Your task to perform on an android device: Empty the shopping cart on newegg.com. Search for razer blade on newegg.com, select the first entry, and add it to the cart. Image 0: 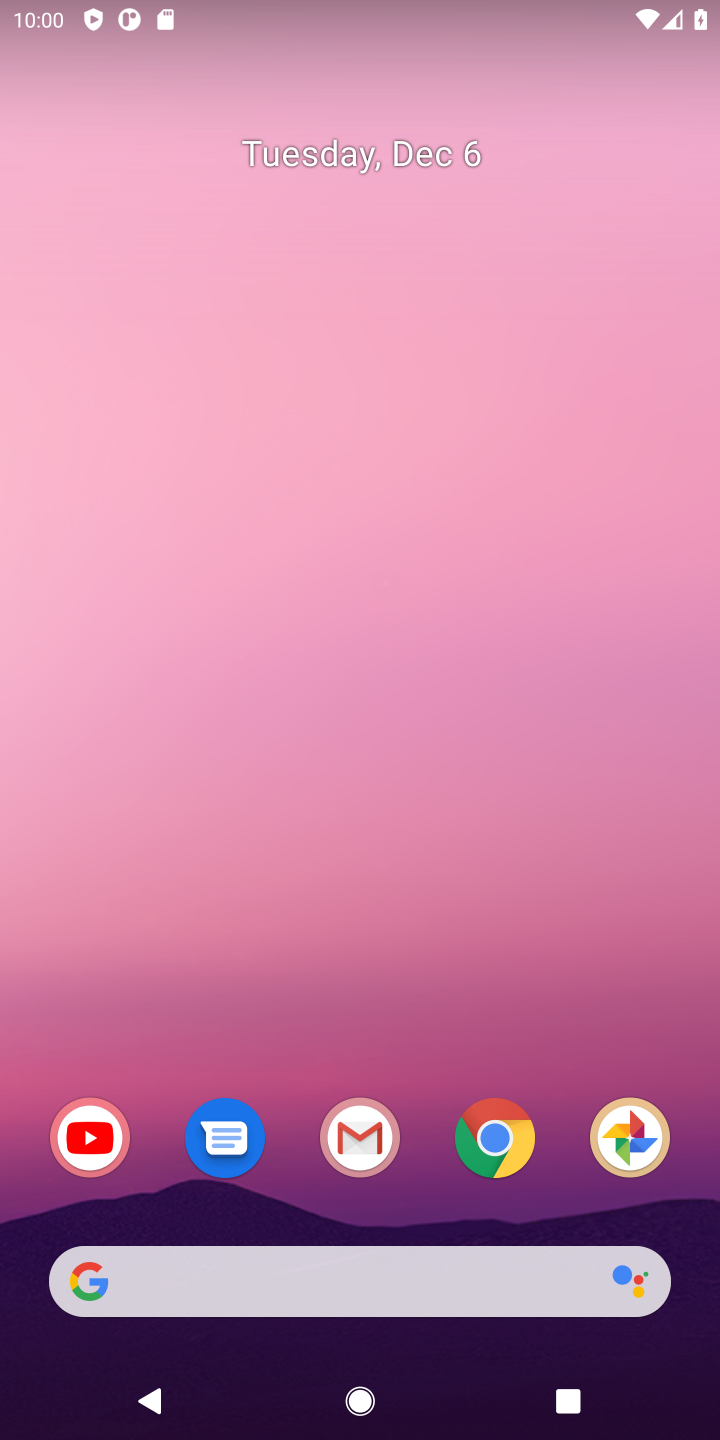
Step 0: click (507, 1145)
Your task to perform on an android device: Empty the shopping cart on newegg.com. Search for razer blade on newegg.com, select the first entry, and add it to the cart. Image 1: 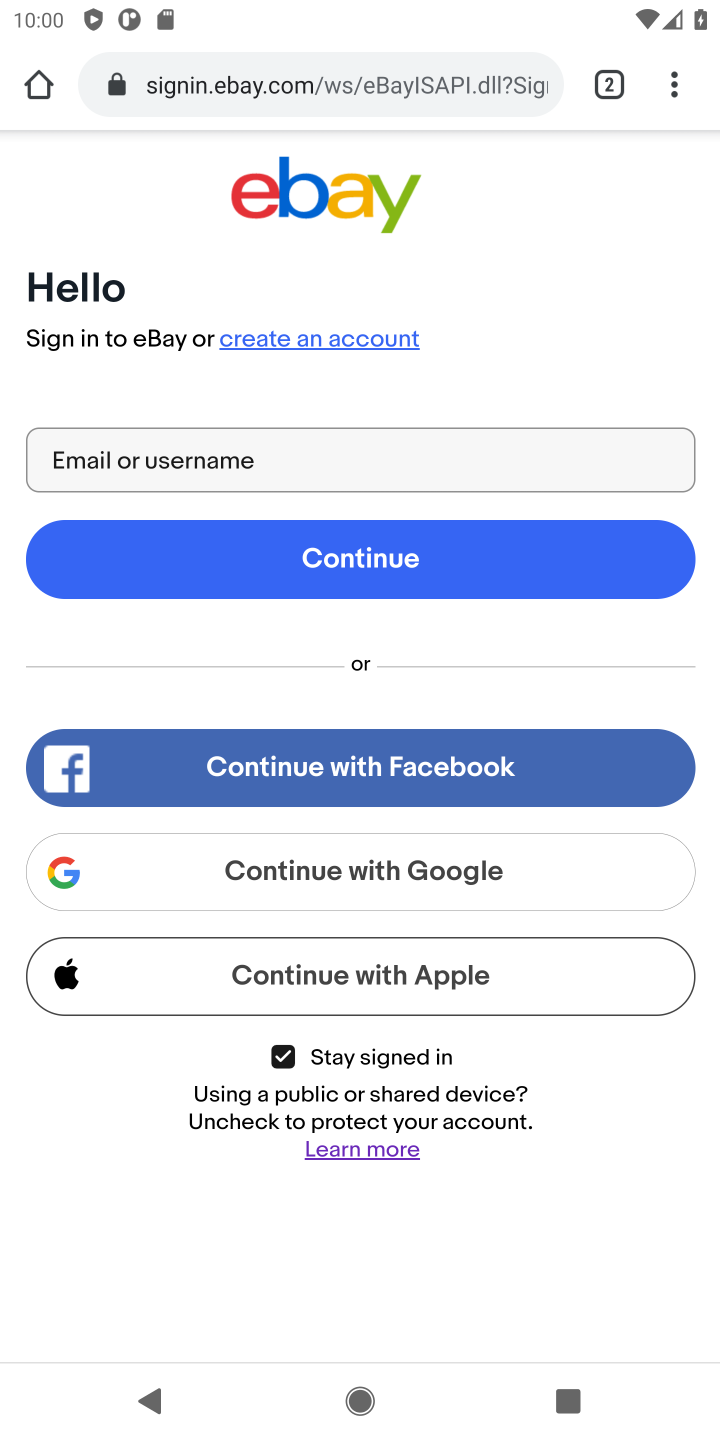
Step 1: click (280, 92)
Your task to perform on an android device: Empty the shopping cart on newegg.com. Search for razer blade on newegg.com, select the first entry, and add it to the cart. Image 2: 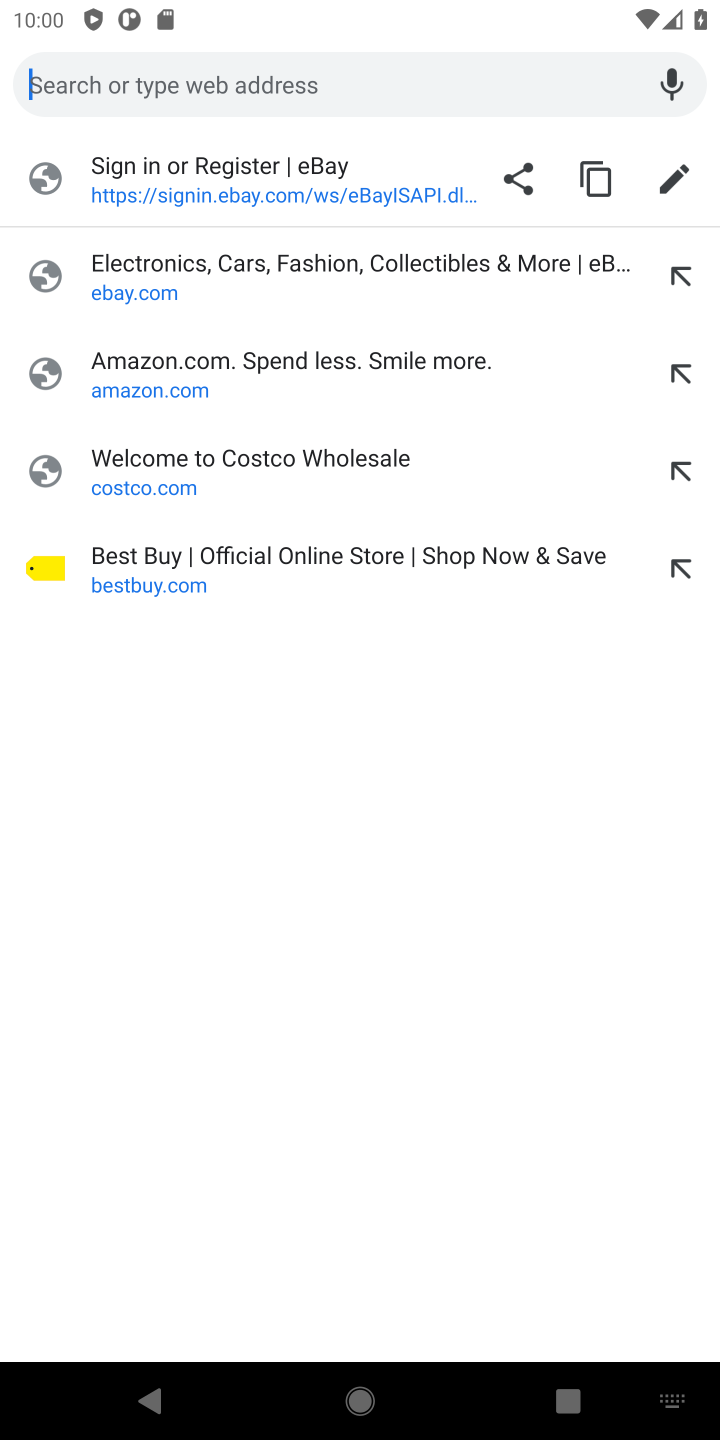
Step 2: type "newegg.com"
Your task to perform on an android device: Empty the shopping cart on newegg.com. Search for razer blade on newegg.com, select the first entry, and add it to the cart. Image 3: 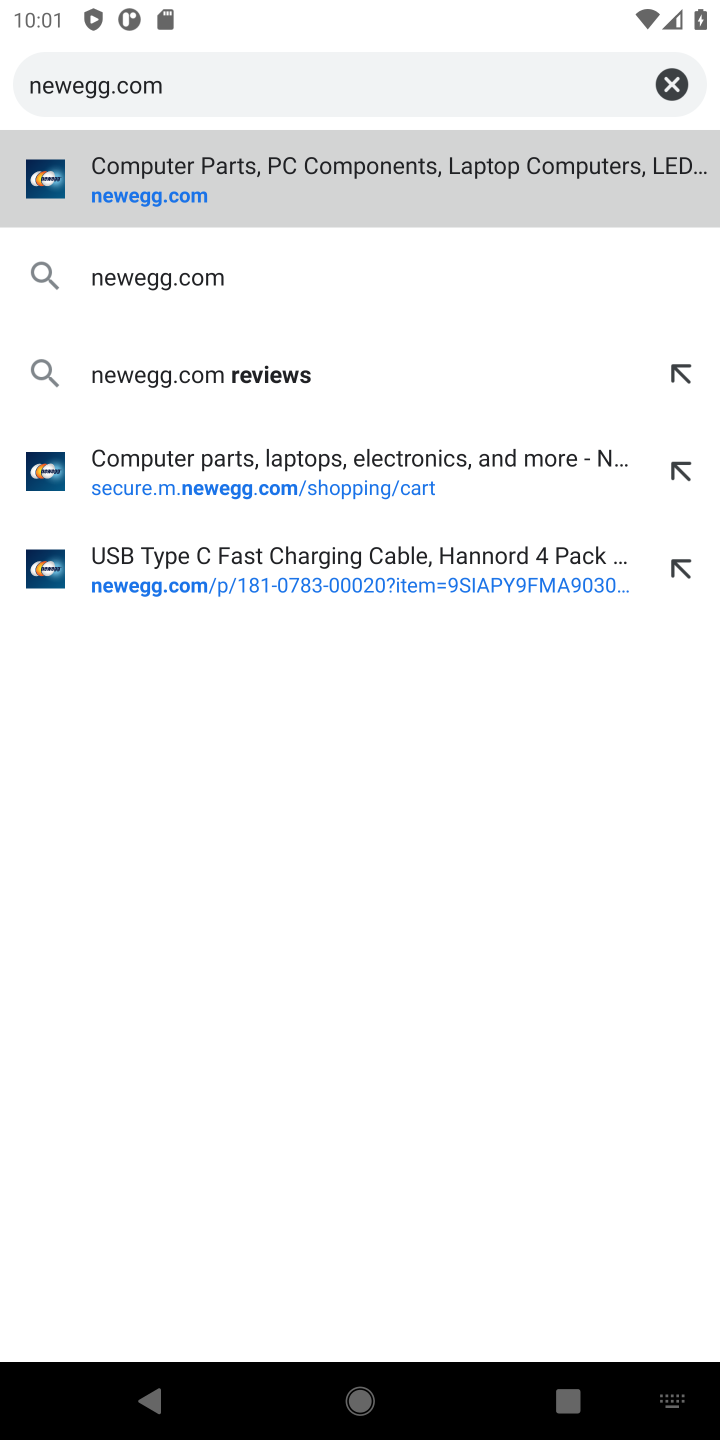
Step 3: click (149, 182)
Your task to perform on an android device: Empty the shopping cart on newegg.com. Search for razer blade on newegg.com, select the first entry, and add it to the cart. Image 4: 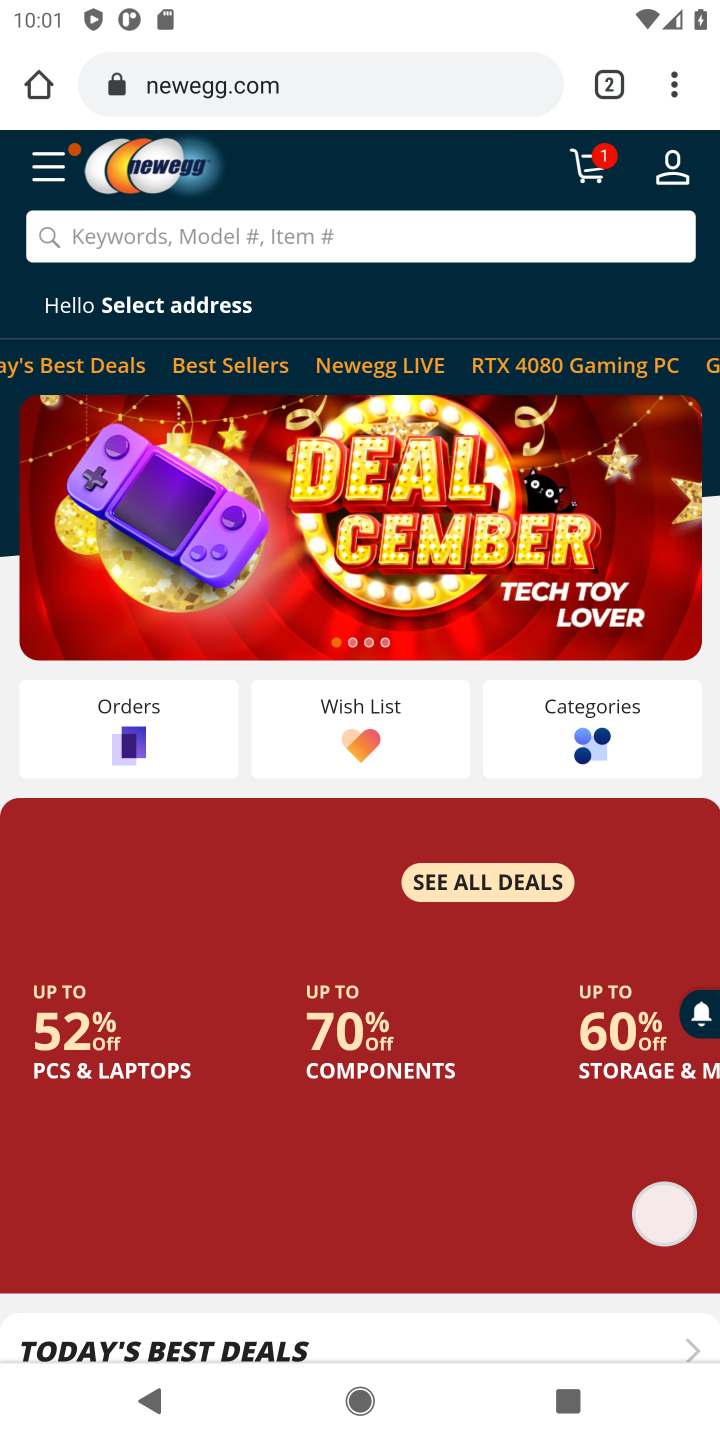
Step 4: click (590, 175)
Your task to perform on an android device: Empty the shopping cart on newegg.com. Search for razer blade on newegg.com, select the first entry, and add it to the cart. Image 5: 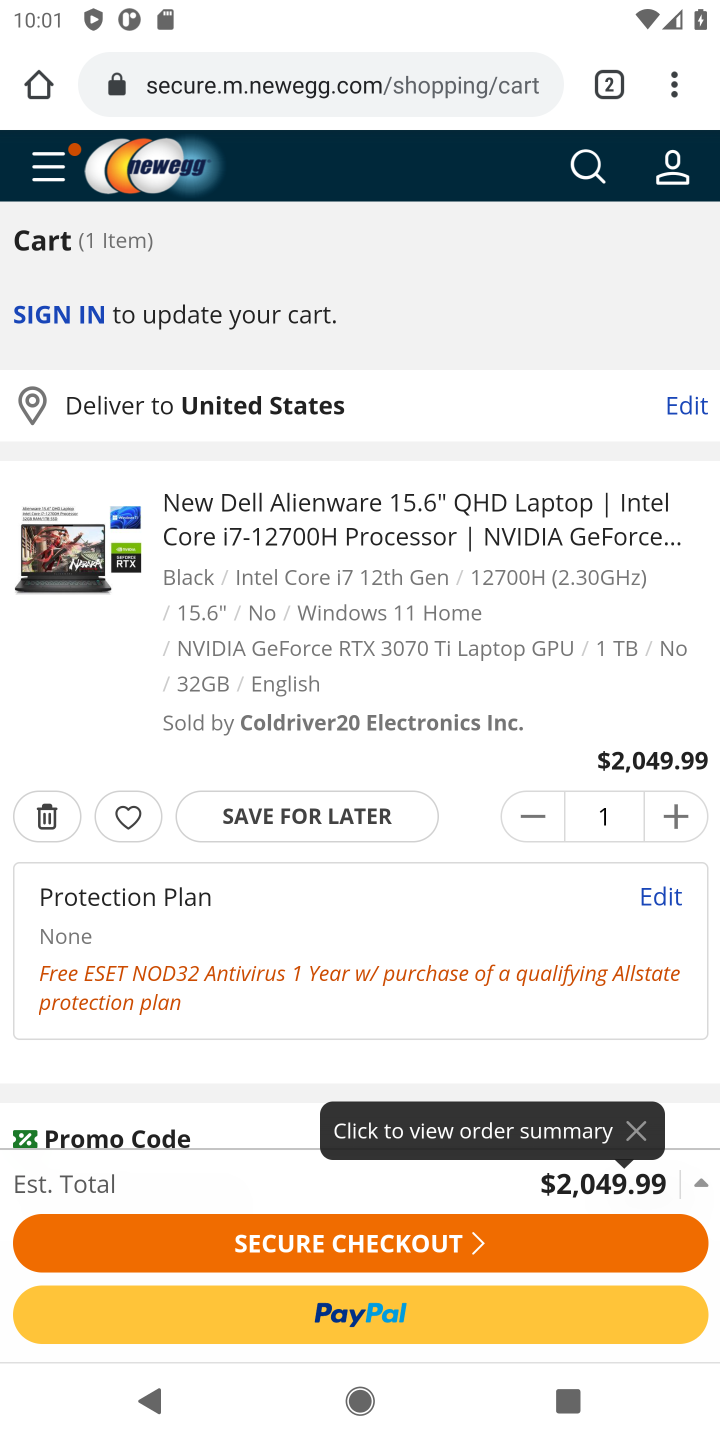
Step 5: click (50, 828)
Your task to perform on an android device: Empty the shopping cart on newegg.com. Search for razer blade on newegg.com, select the first entry, and add it to the cart. Image 6: 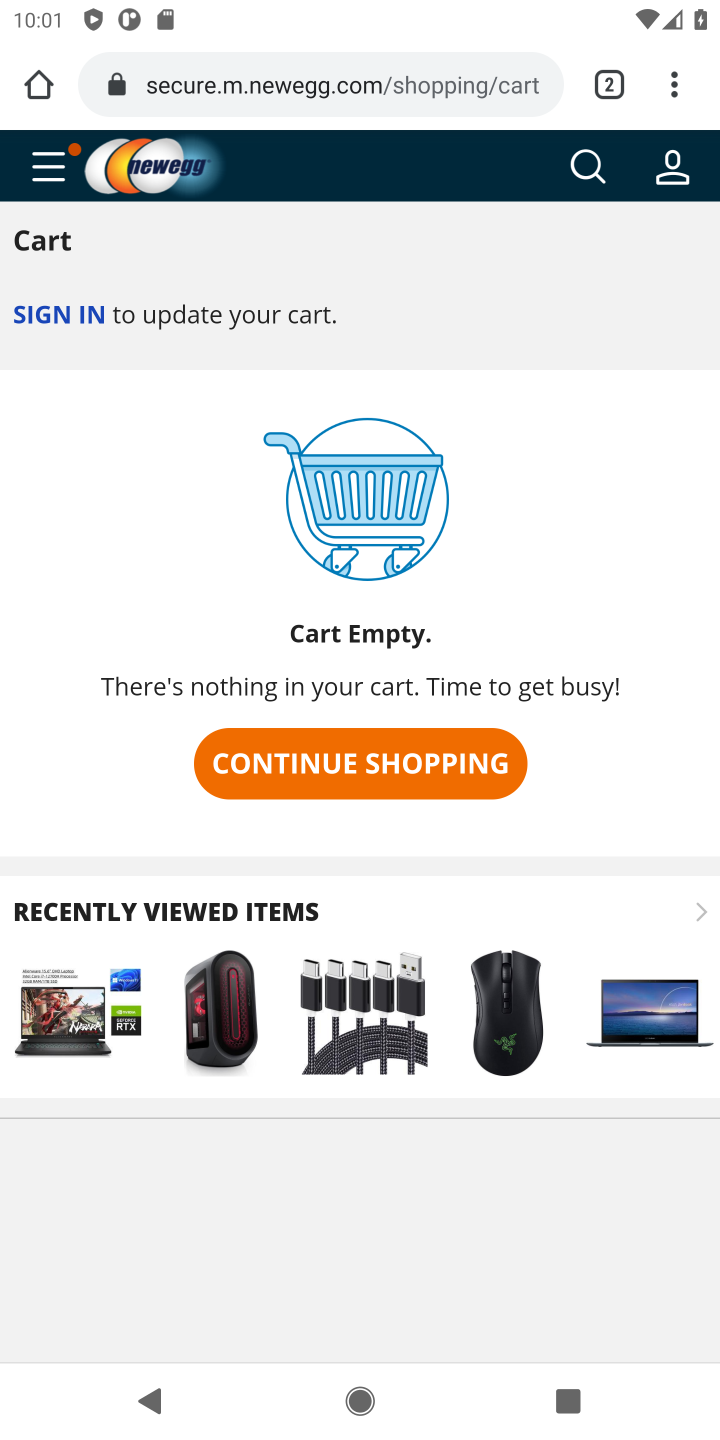
Step 6: click (586, 159)
Your task to perform on an android device: Empty the shopping cart on newegg.com. Search for razer blade on newegg.com, select the first entry, and add it to the cart. Image 7: 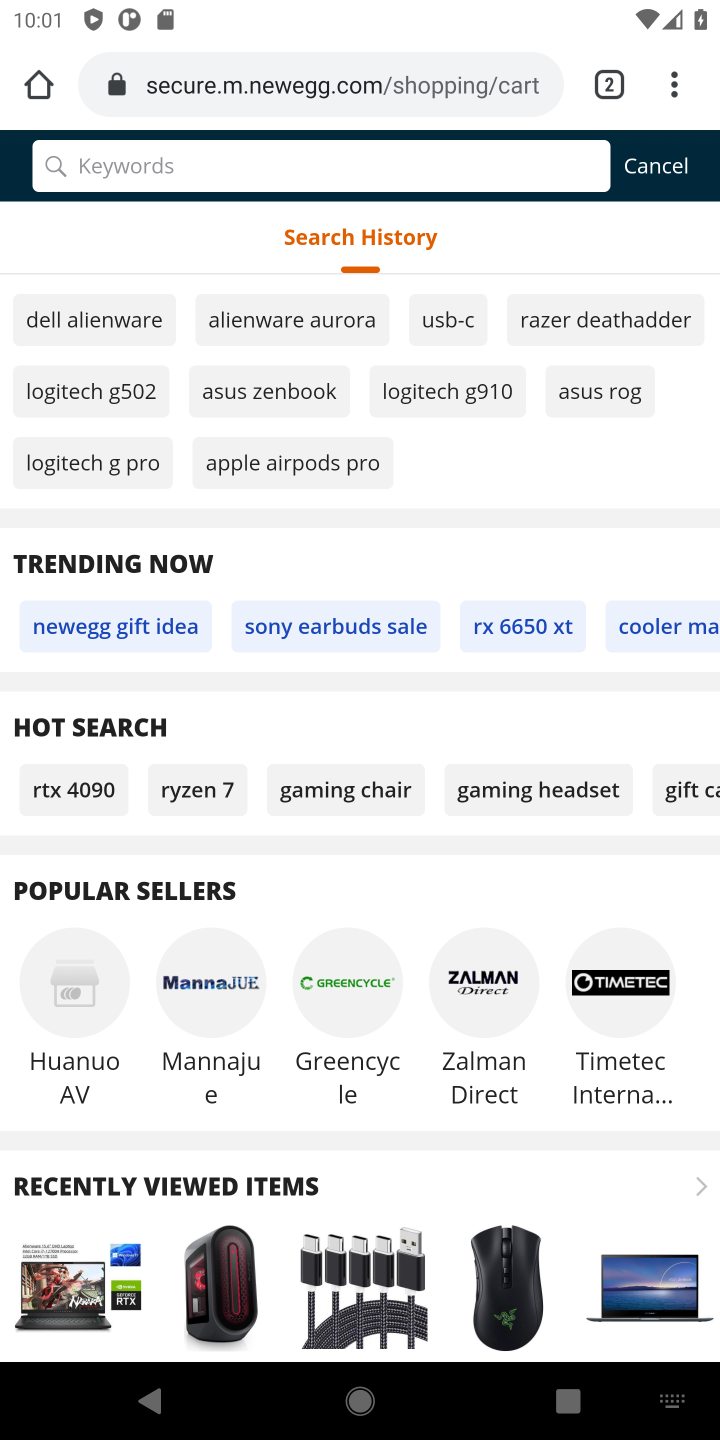
Step 7: type "razer blade "
Your task to perform on an android device: Empty the shopping cart on newegg.com. Search for razer blade on newegg.com, select the first entry, and add it to the cart. Image 8: 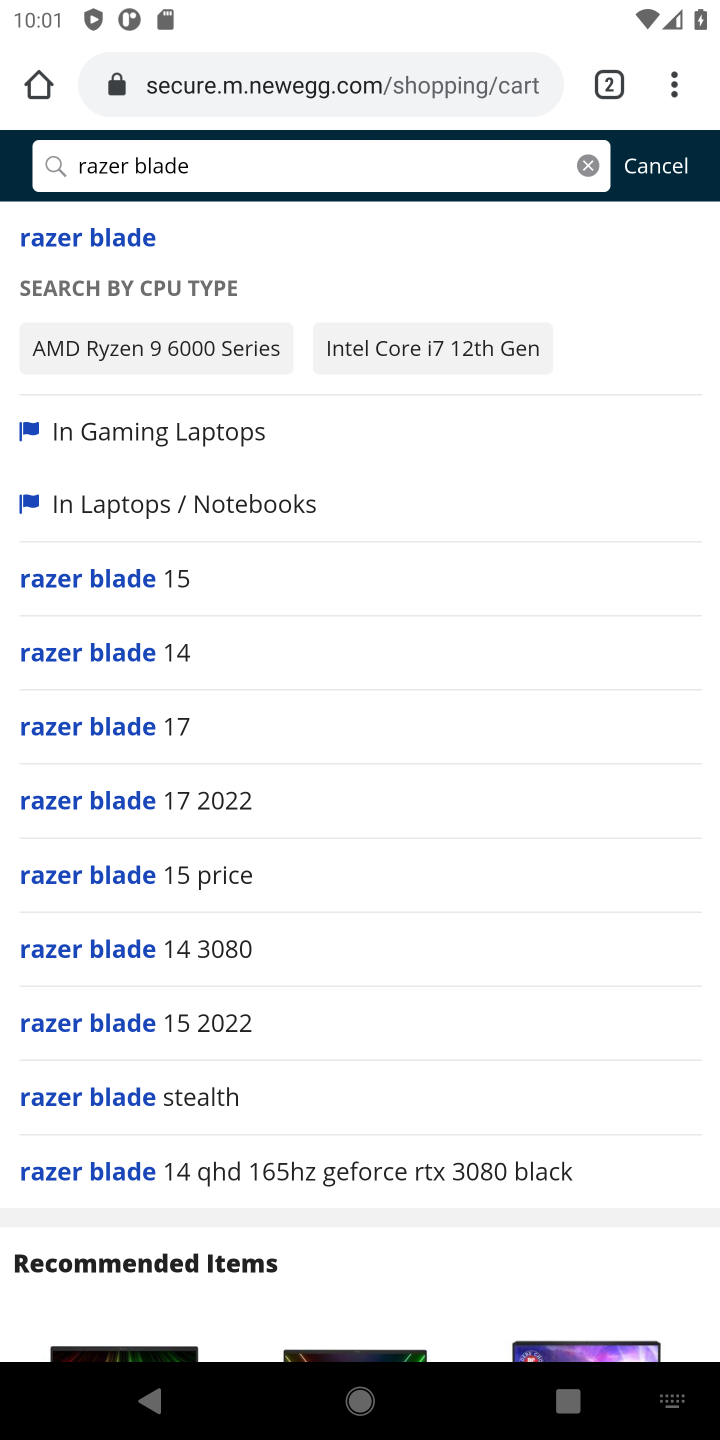
Step 8: click (112, 251)
Your task to perform on an android device: Empty the shopping cart on newegg.com. Search for razer blade on newegg.com, select the first entry, and add it to the cart. Image 9: 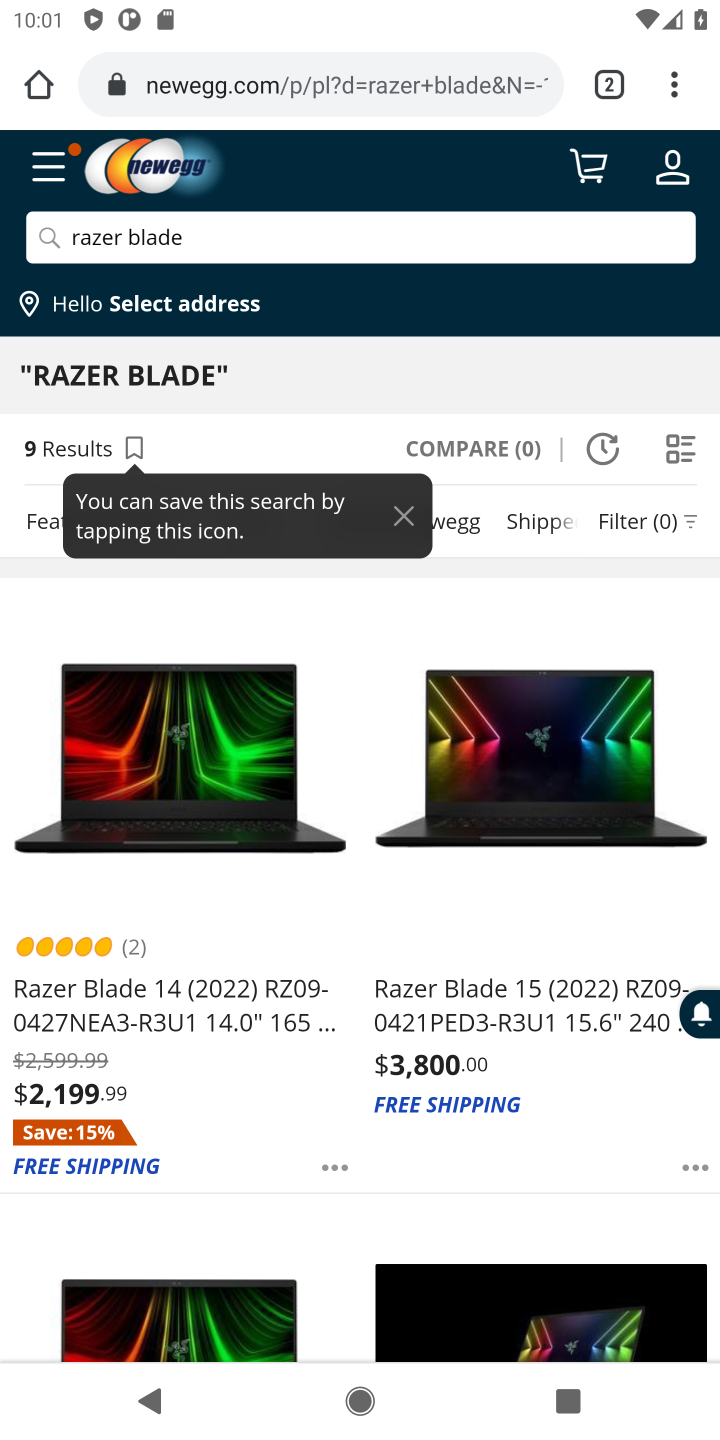
Step 9: click (163, 991)
Your task to perform on an android device: Empty the shopping cart on newegg.com. Search for razer blade on newegg.com, select the first entry, and add it to the cart. Image 10: 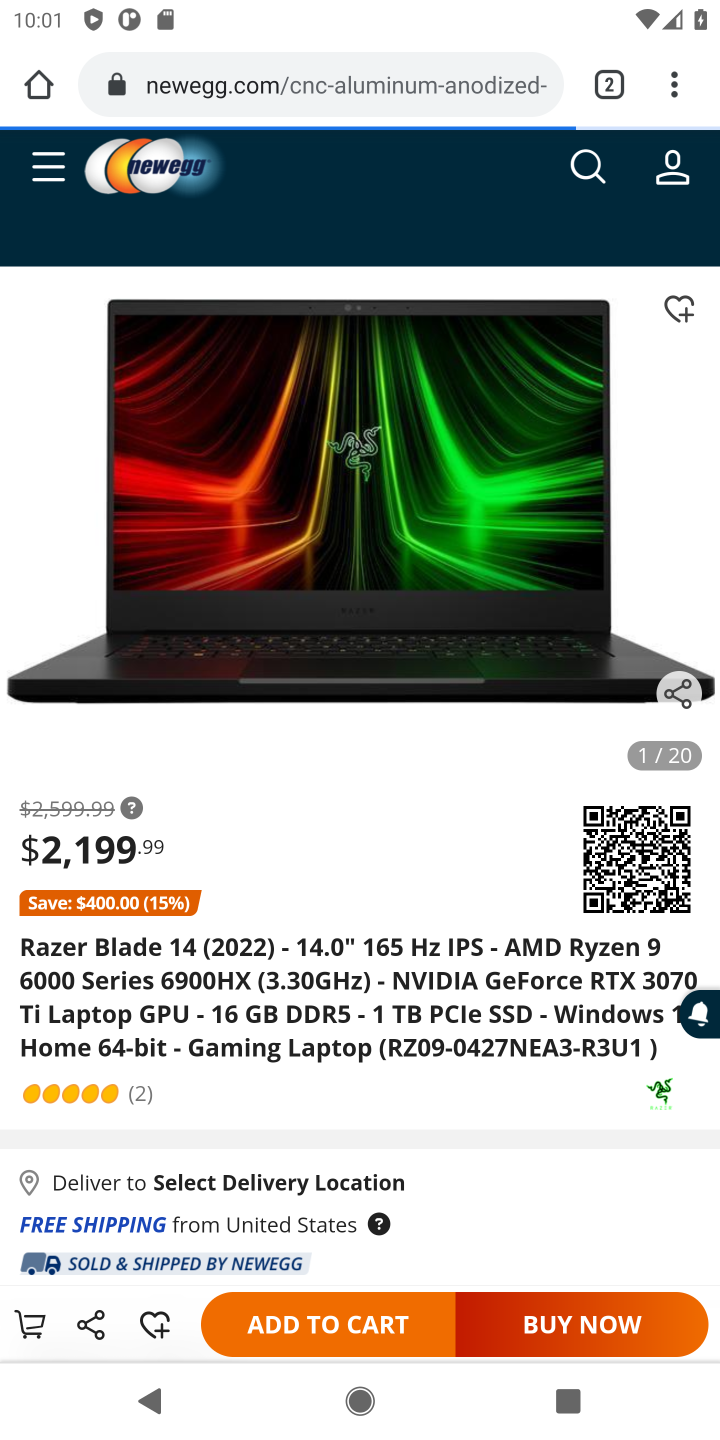
Step 10: click (282, 1314)
Your task to perform on an android device: Empty the shopping cart on newegg.com. Search for razer blade on newegg.com, select the first entry, and add it to the cart. Image 11: 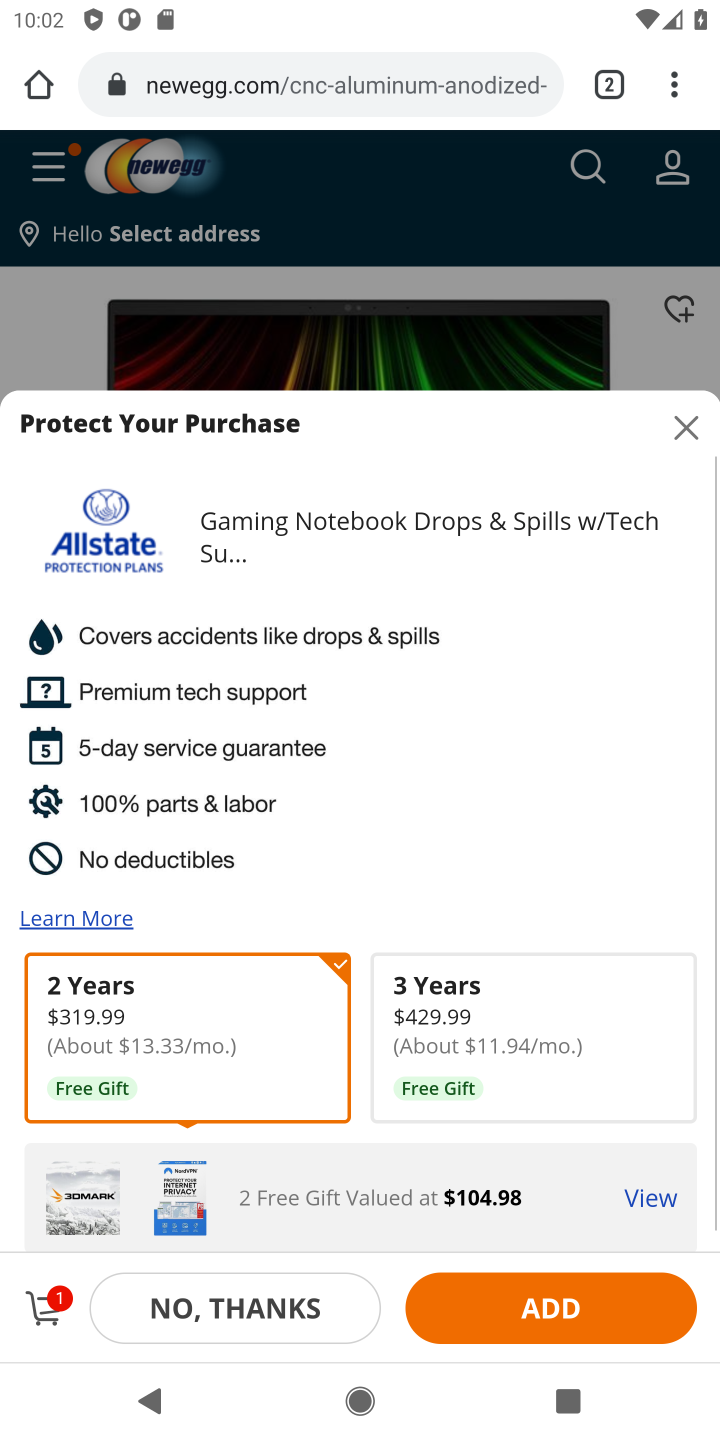
Step 11: task complete